Your task to perform on an android device: Show me popular games on the Play Store Image 0: 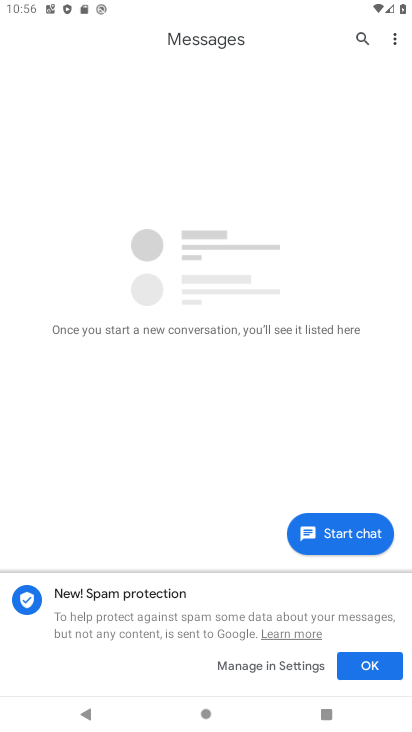
Step 0: press home button
Your task to perform on an android device: Show me popular games on the Play Store Image 1: 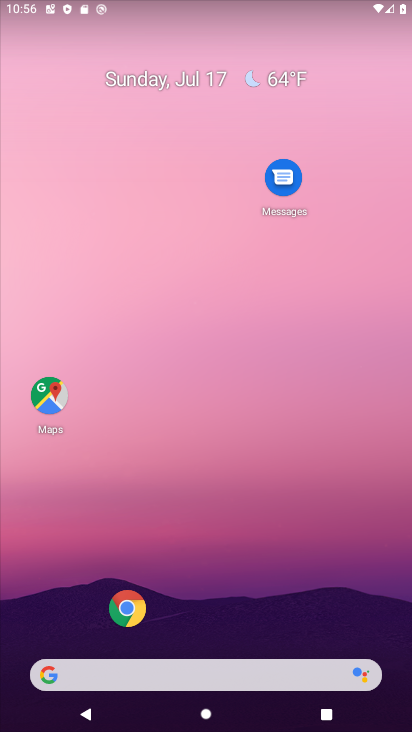
Step 1: drag from (29, 718) to (133, 188)
Your task to perform on an android device: Show me popular games on the Play Store Image 2: 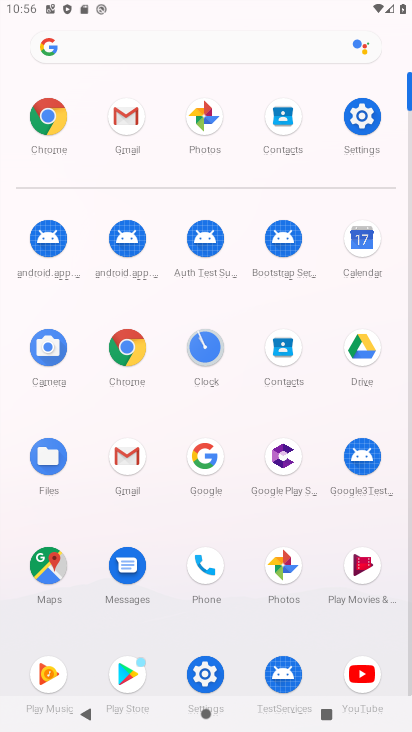
Step 2: click (135, 680)
Your task to perform on an android device: Show me popular games on the Play Store Image 3: 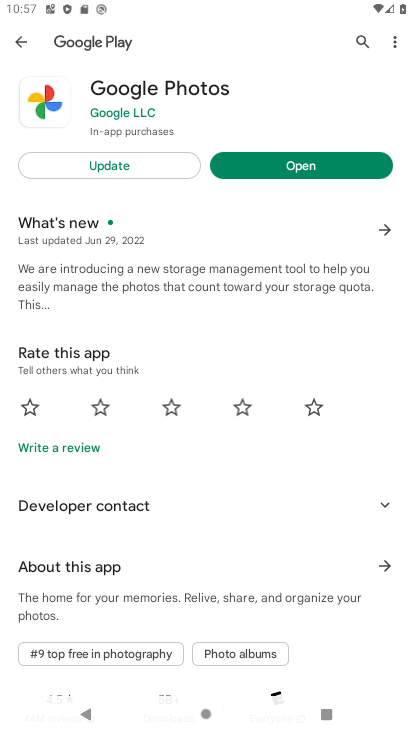
Step 3: click (20, 43)
Your task to perform on an android device: Show me popular games on the Play Store Image 4: 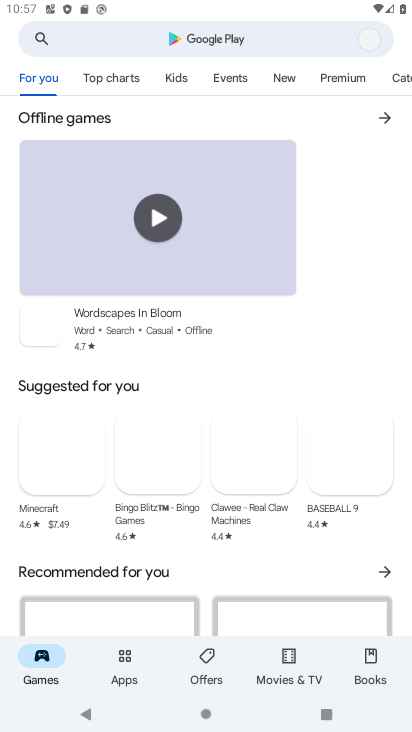
Step 4: click (96, 31)
Your task to perform on an android device: Show me popular games on the Play Store Image 5: 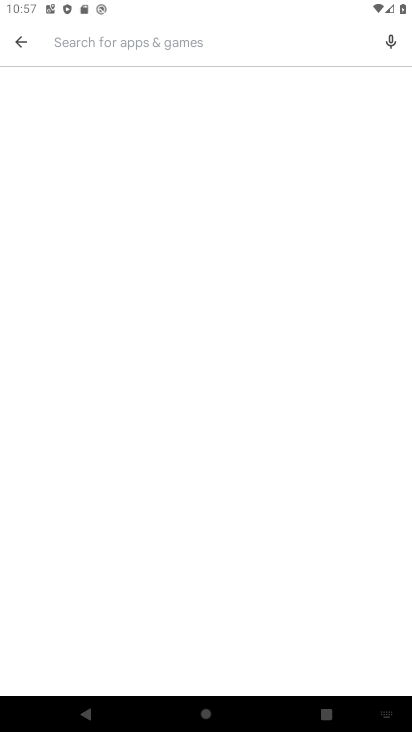
Step 5: type "popular games "
Your task to perform on an android device: Show me popular games on the Play Store Image 6: 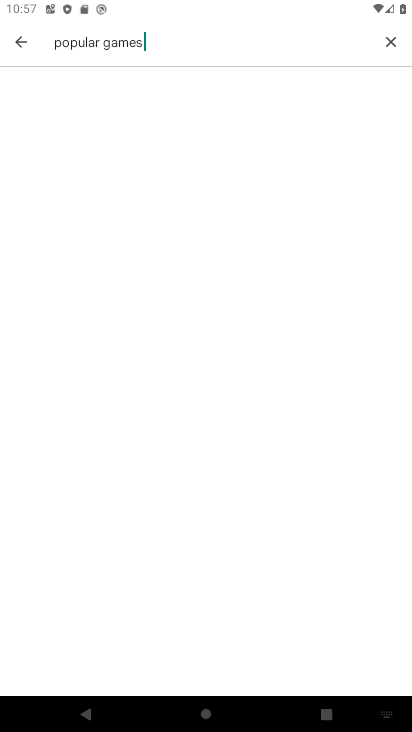
Step 6: type ""
Your task to perform on an android device: Show me popular games on the Play Store Image 7: 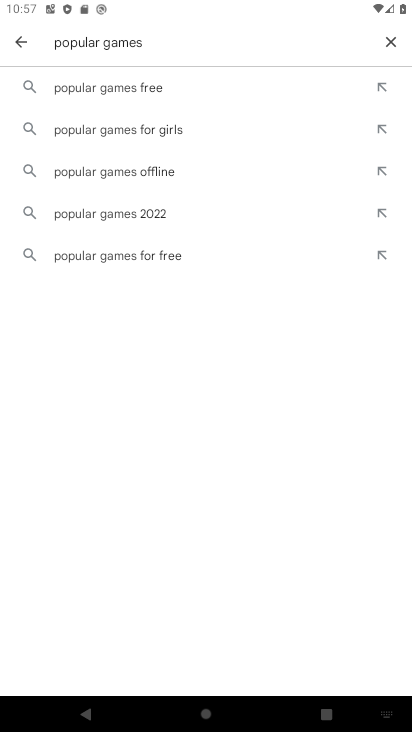
Step 7: click (94, 89)
Your task to perform on an android device: Show me popular games on the Play Store Image 8: 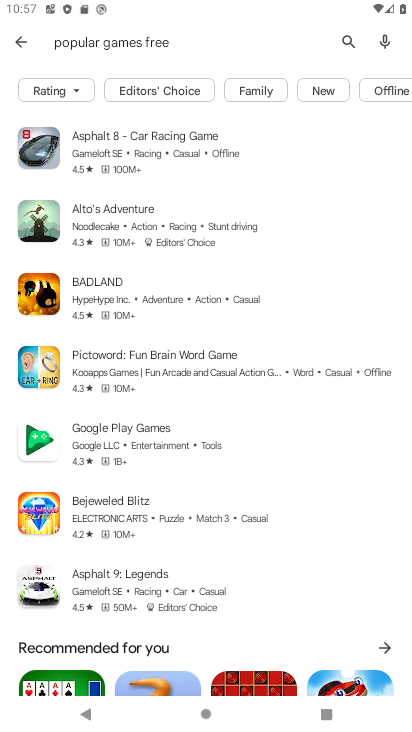
Step 8: task complete